Your task to perform on an android device: change the clock display to digital Image 0: 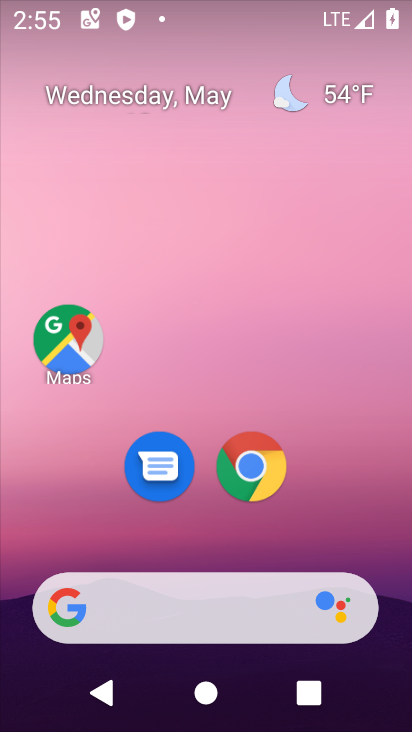
Step 0: drag from (356, 496) to (326, 319)
Your task to perform on an android device: change the clock display to digital Image 1: 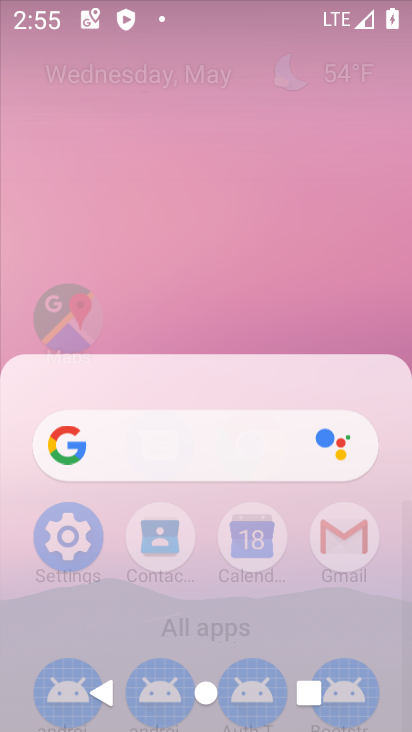
Step 1: click (326, 319)
Your task to perform on an android device: change the clock display to digital Image 2: 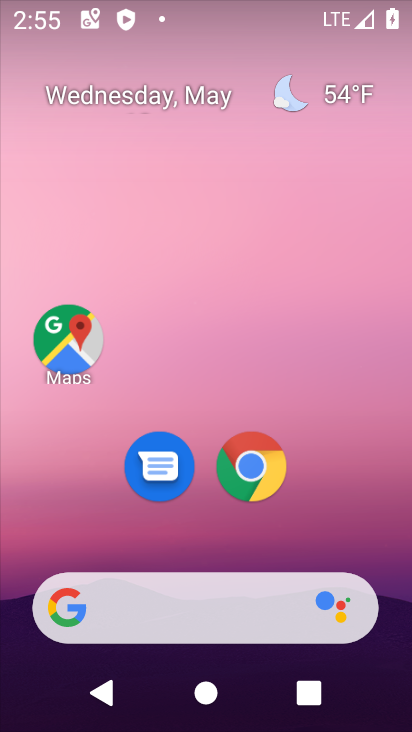
Step 2: drag from (379, 602) to (390, 302)
Your task to perform on an android device: change the clock display to digital Image 3: 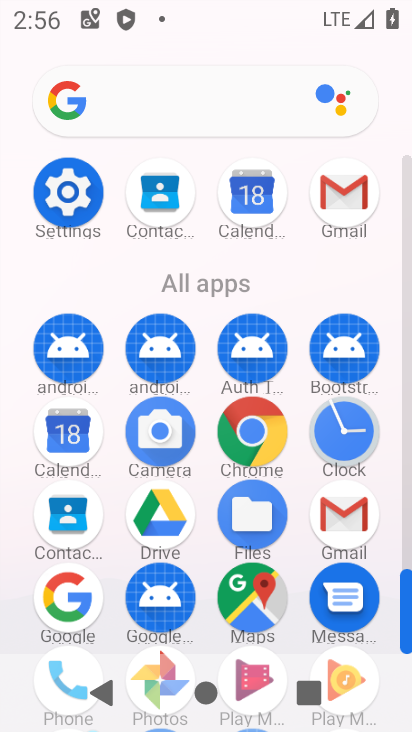
Step 3: click (335, 441)
Your task to perform on an android device: change the clock display to digital Image 4: 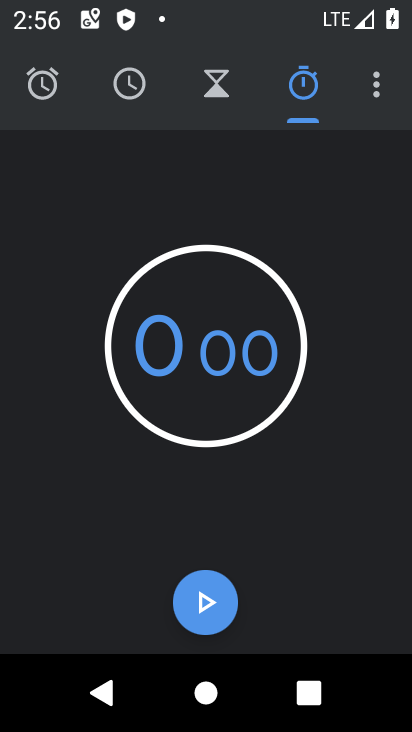
Step 4: click (376, 107)
Your task to perform on an android device: change the clock display to digital Image 5: 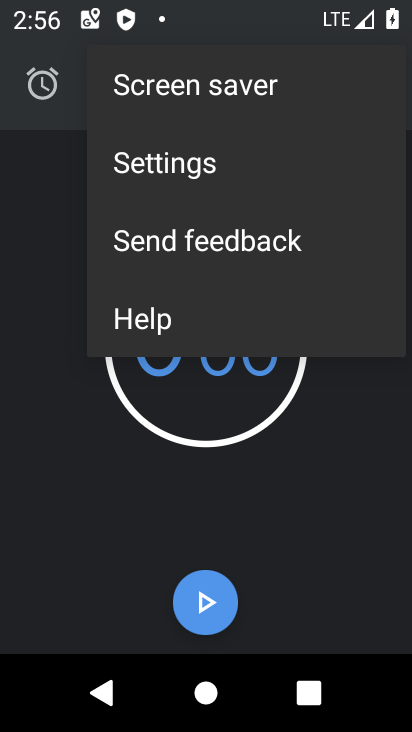
Step 5: click (128, 163)
Your task to perform on an android device: change the clock display to digital Image 6: 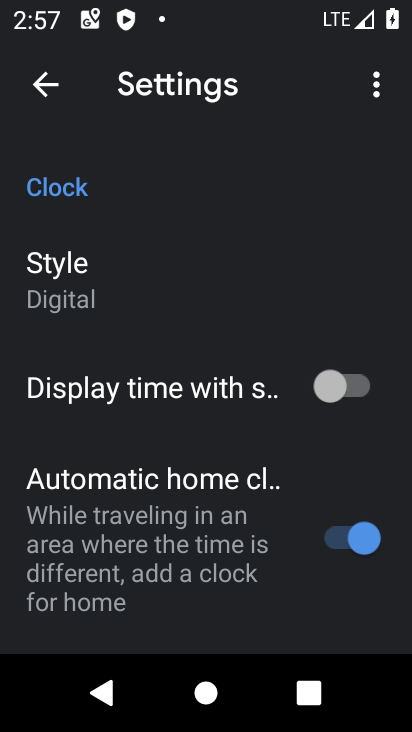
Step 6: task complete